Your task to perform on an android device: open a new tab in the chrome app Image 0: 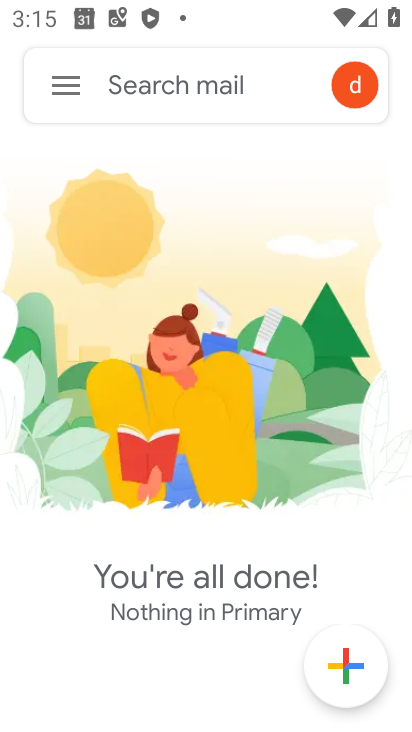
Step 0: press home button
Your task to perform on an android device: open a new tab in the chrome app Image 1: 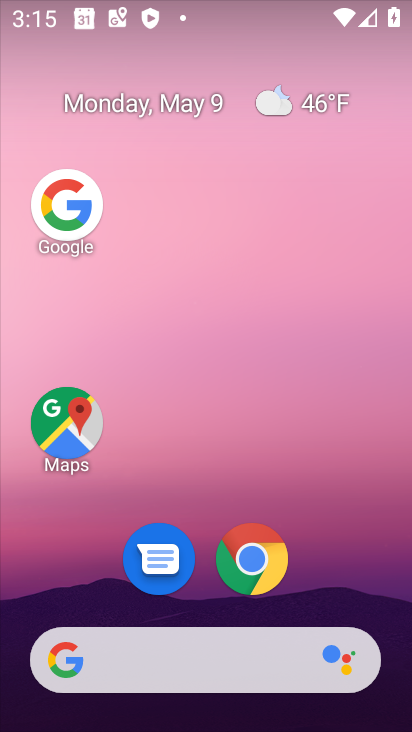
Step 1: click (251, 553)
Your task to perform on an android device: open a new tab in the chrome app Image 2: 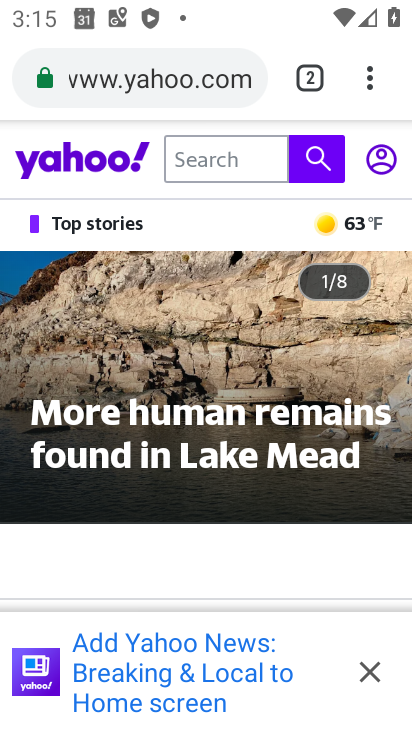
Step 2: click (302, 75)
Your task to perform on an android device: open a new tab in the chrome app Image 3: 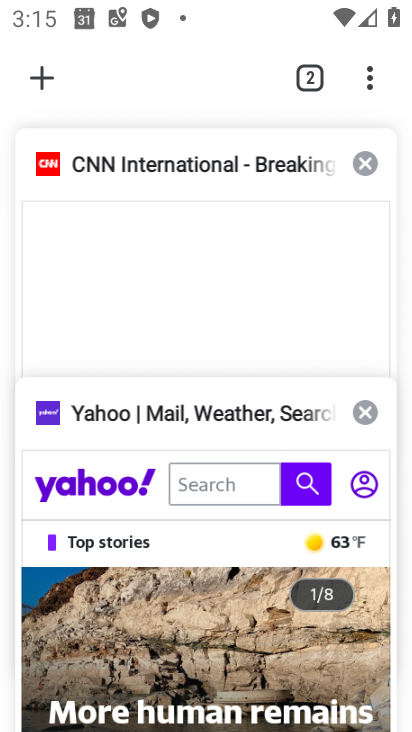
Step 3: click (33, 75)
Your task to perform on an android device: open a new tab in the chrome app Image 4: 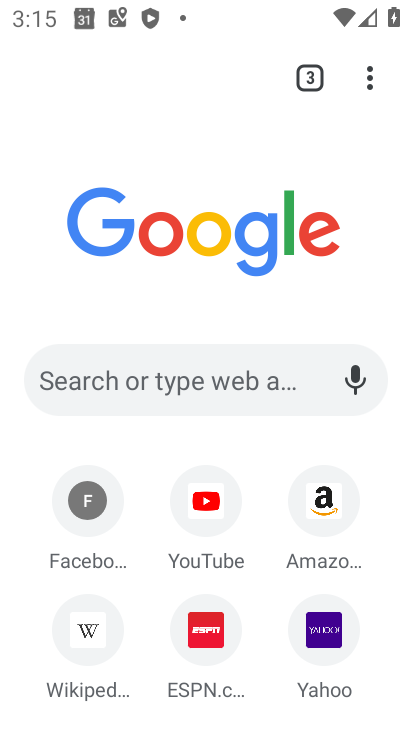
Step 4: task complete